Your task to perform on an android device: open wifi settings Image 0: 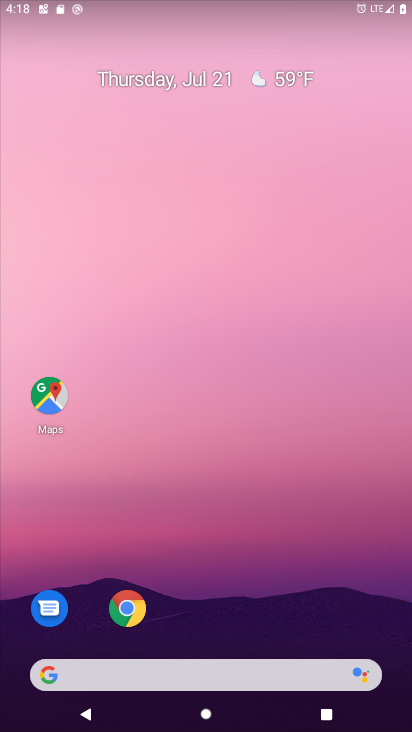
Step 0: drag from (339, 300) to (335, 128)
Your task to perform on an android device: open wifi settings Image 1: 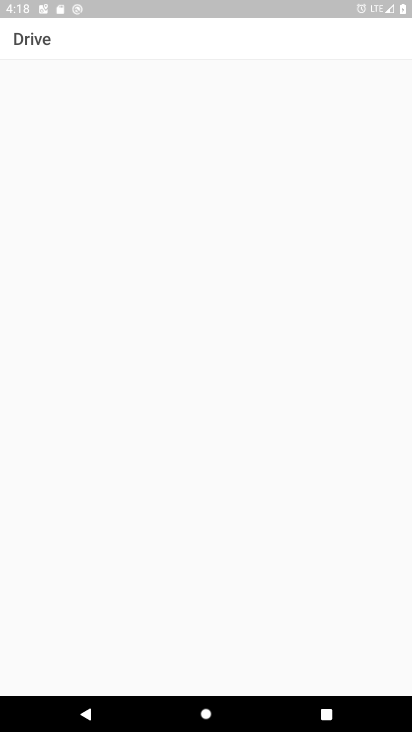
Step 1: press home button
Your task to perform on an android device: open wifi settings Image 2: 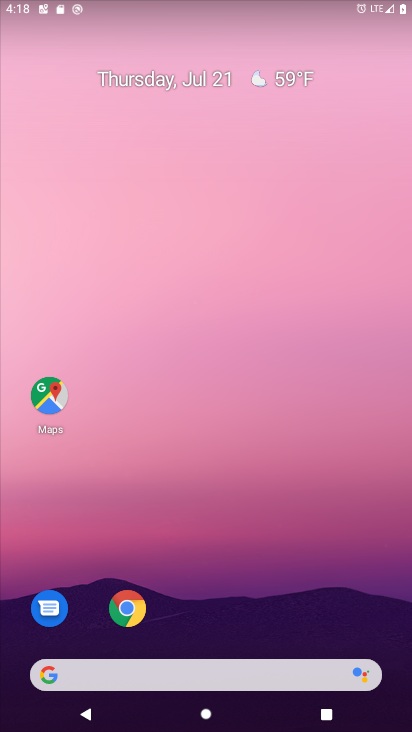
Step 2: drag from (179, 681) to (211, 1)
Your task to perform on an android device: open wifi settings Image 3: 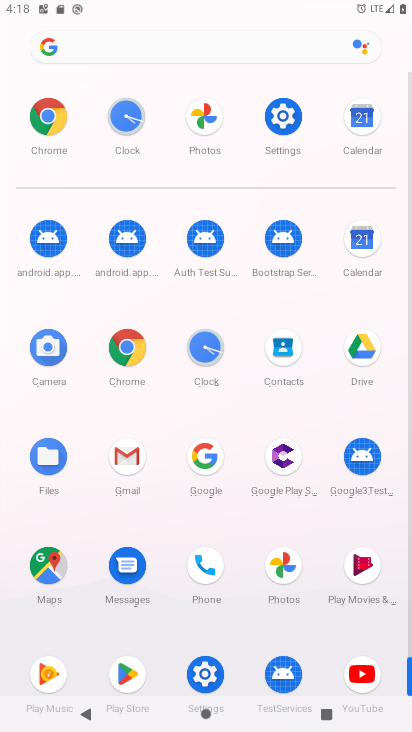
Step 3: click (292, 122)
Your task to perform on an android device: open wifi settings Image 4: 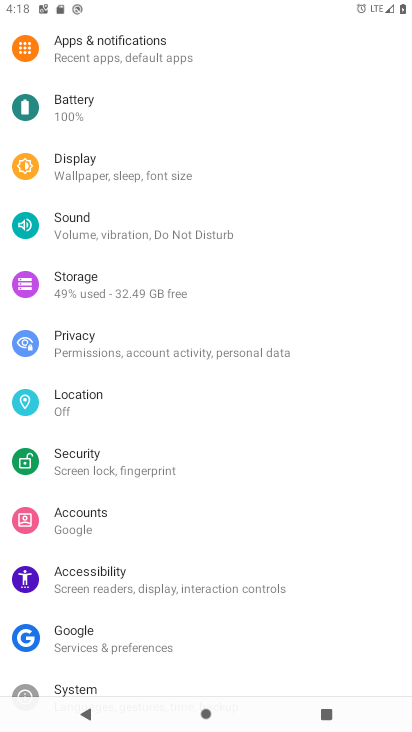
Step 4: drag from (158, 161) to (184, 667)
Your task to perform on an android device: open wifi settings Image 5: 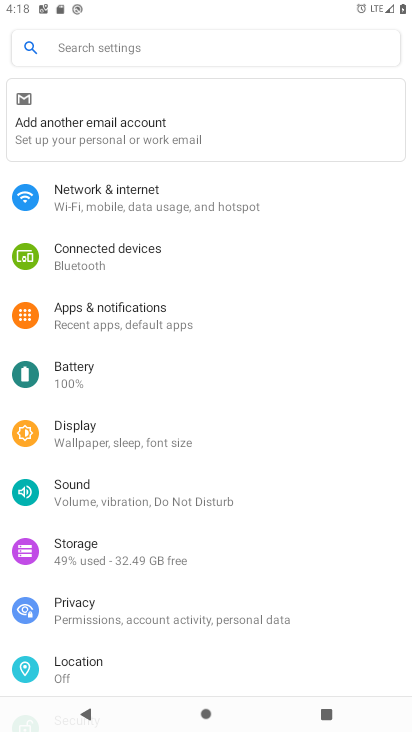
Step 5: click (145, 206)
Your task to perform on an android device: open wifi settings Image 6: 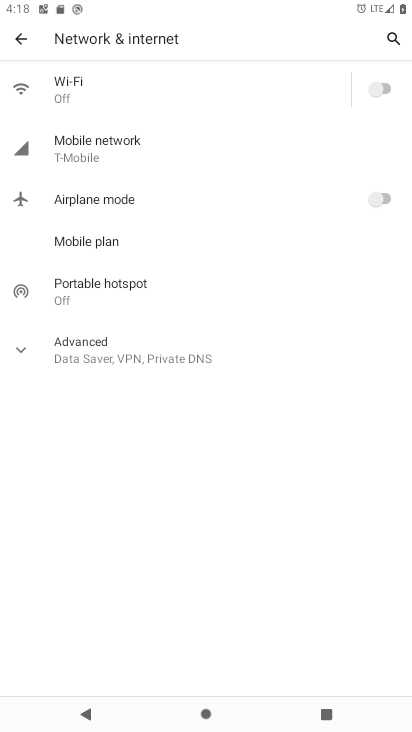
Step 6: click (76, 82)
Your task to perform on an android device: open wifi settings Image 7: 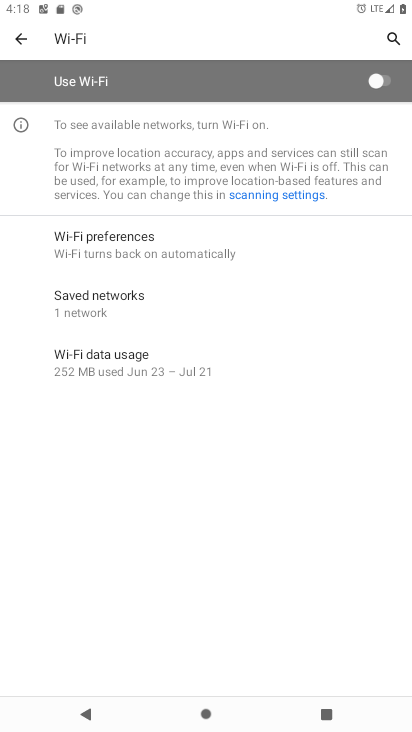
Step 7: task complete